Your task to perform on an android device: allow cookies in the chrome app Image 0: 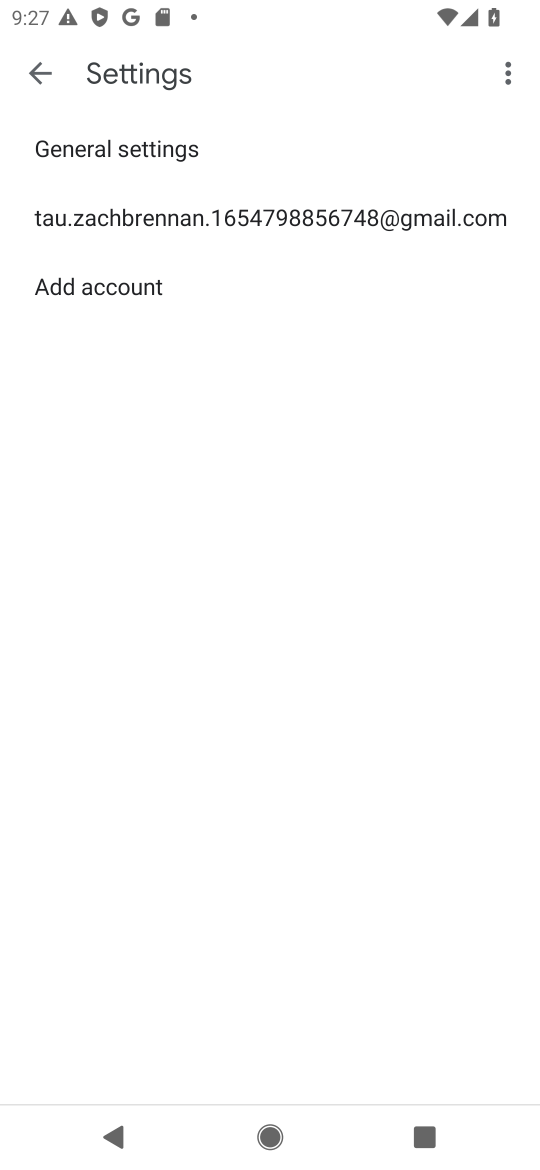
Step 0: press home button
Your task to perform on an android device: allow cookies in the chrome app Image 1: 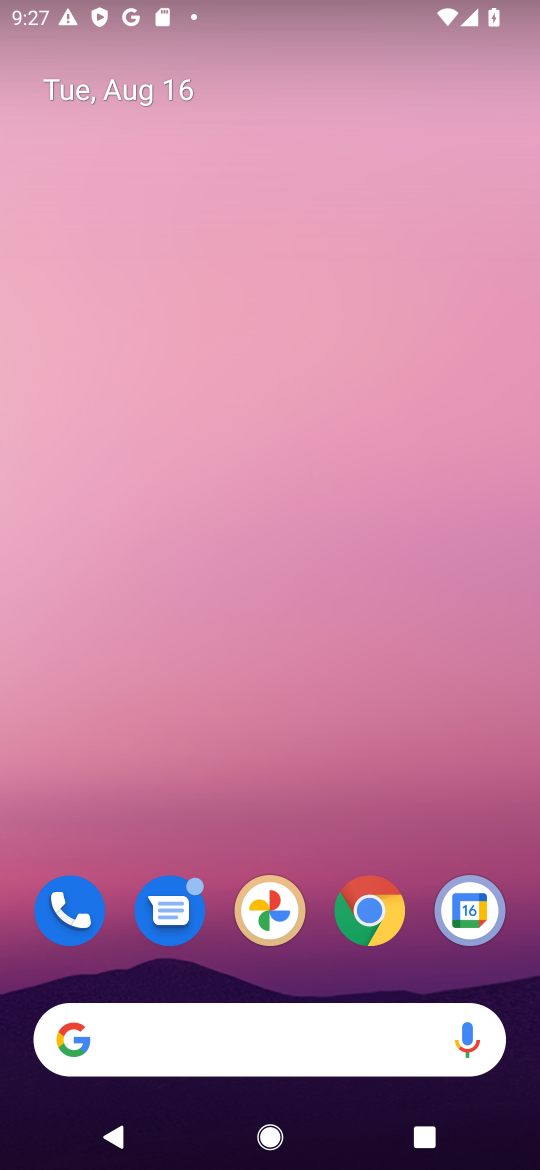
Step 1: click (376, 903)
Your task to perform on an android device: allow cookies in the chrome app Image 2: 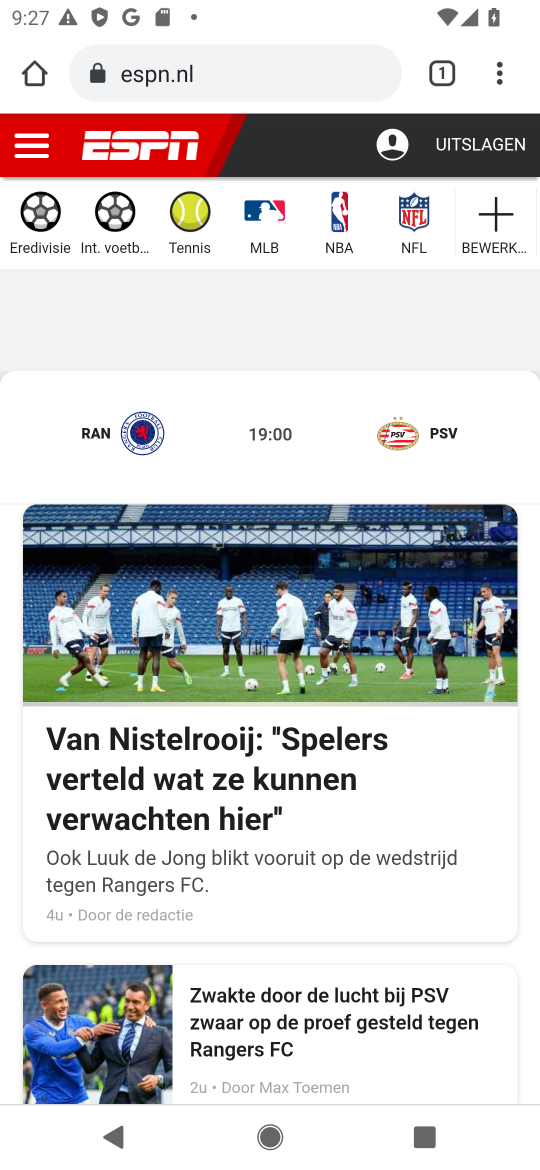
Step 2: click (498, 71)
Your task to perform on an android device: allow cookies in the chrome app Image 3: 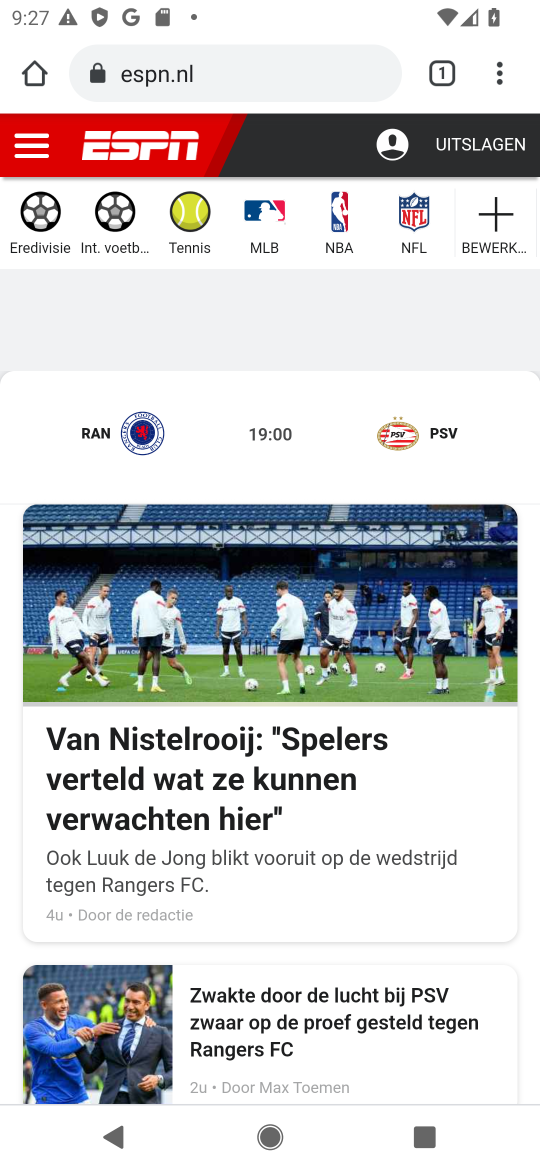
Step 3: click (498, 73)
Your task to perform on an android device: allow cookies in the chrome app Image 4: 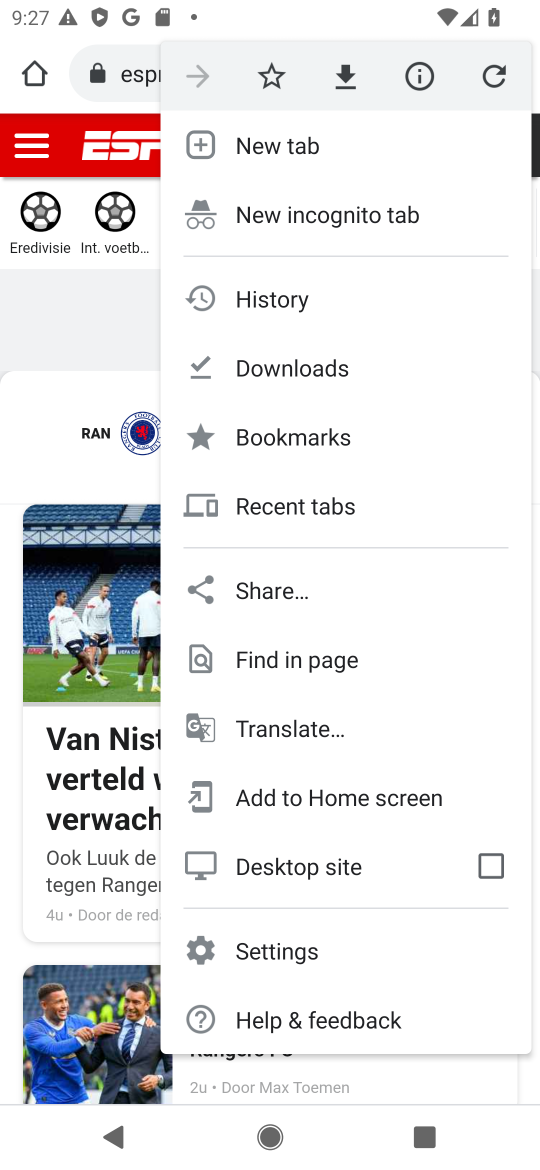
Step 4: click (308, 949)
Your task to perform on an android device: allow cookies in the chrome app Image 5: 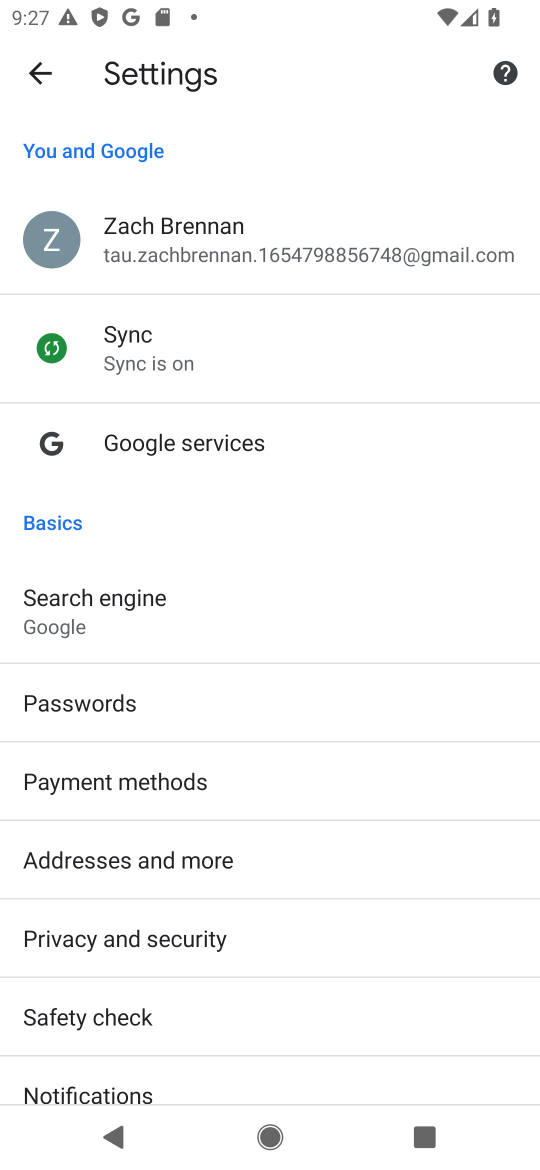
Step 5: drag from (313, 935) to (326, 164)
Your task to perform on an android device: allow cookies in the chrome app Image 6: 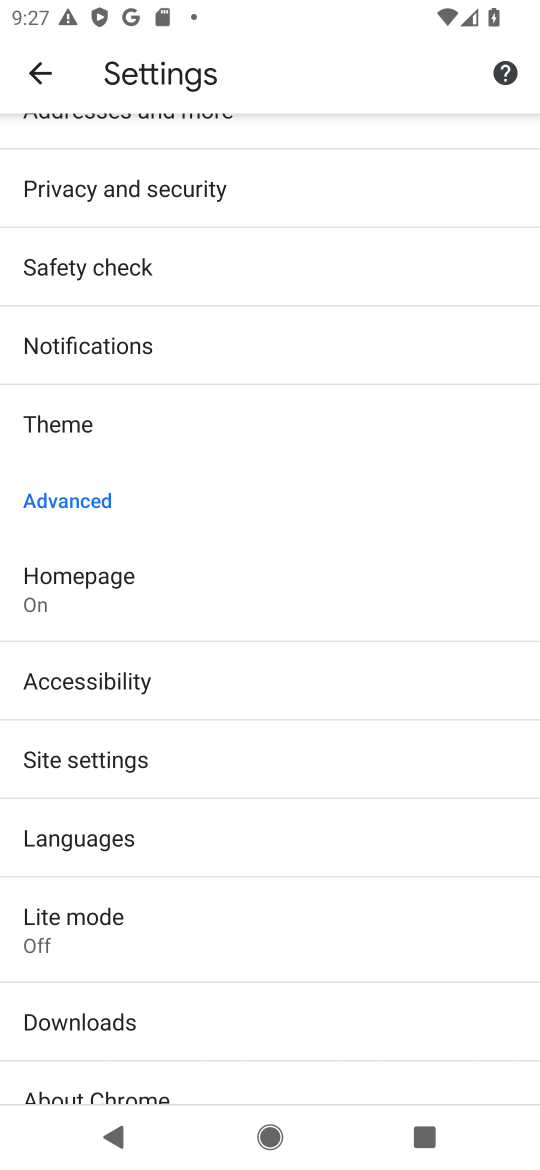
Step 6: click (216, 769)
Your task to perform on an android device: allow cookies in the chrome app Image 7: 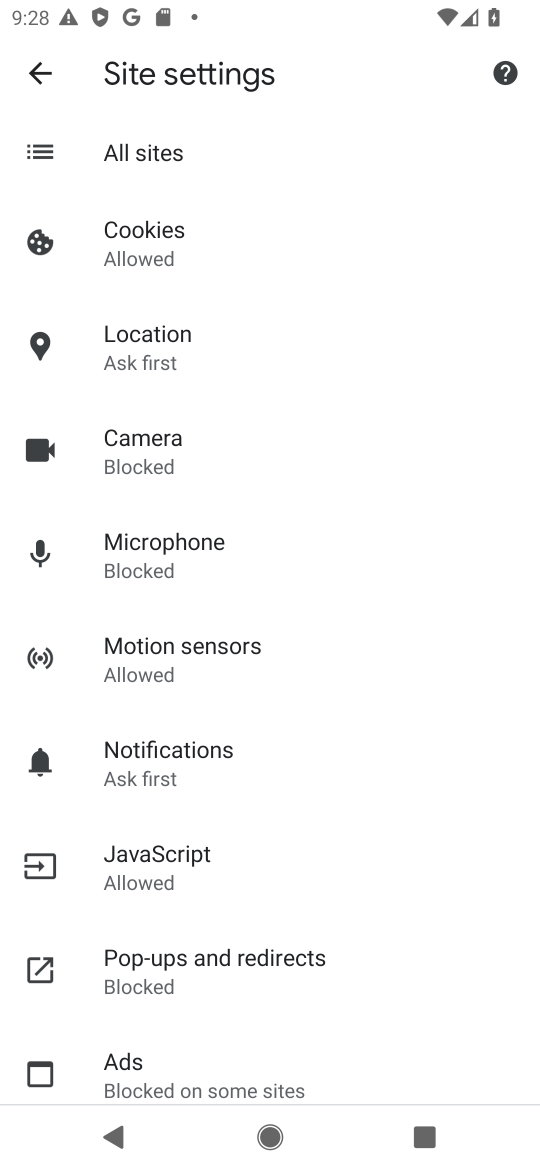
Step 7: click (167, 248)
Your task to perform on an android device: allow cookies in the chrome app Image 8: 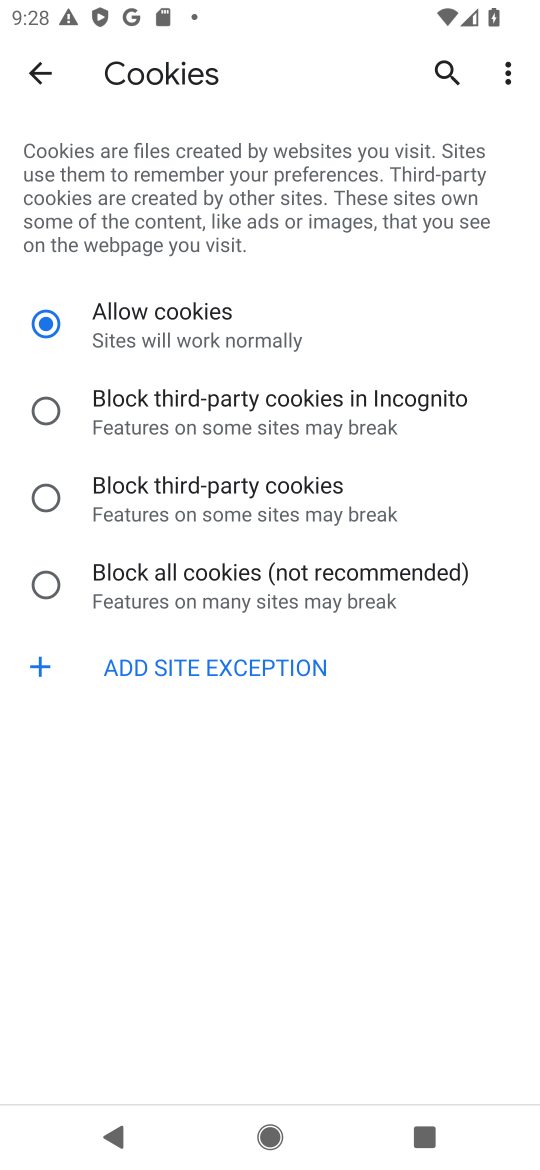
Step 8: task complete